Your task to perform on an android device: Go to location settings Image 0: 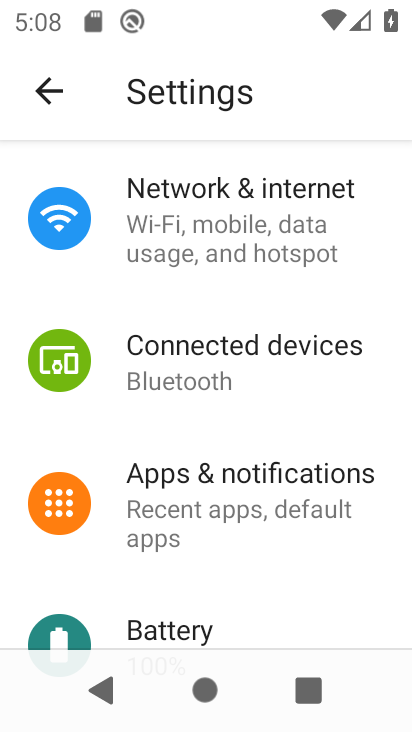
Step 0: drag from (219, 526) to (196, 92)
Your task to perform on an android device: Go to location settings Image 1: 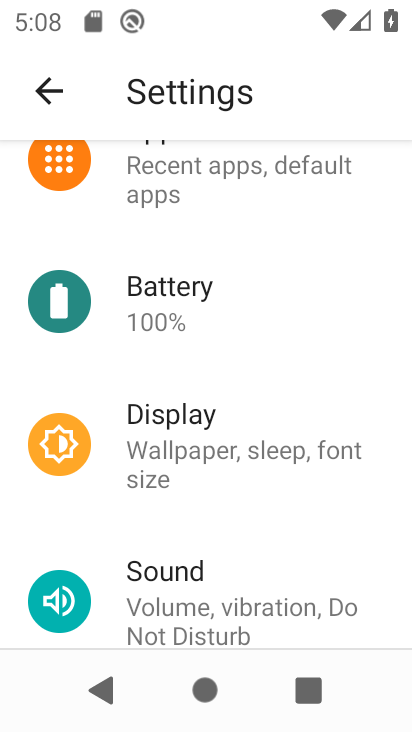
Step 1: drag from (190, 492) to (167, 173)
Your task to perform on an android device: Go to location settings Image 2: 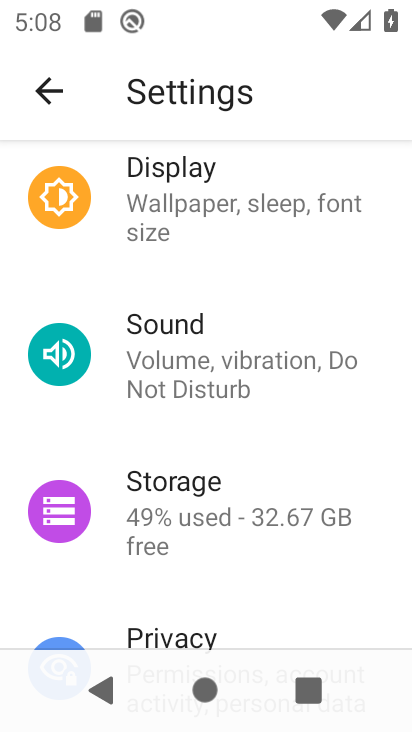
Step 2: drag from (157, 560) to (174, 156)
Your task to perform on an android device: Go to location settings Image 3: 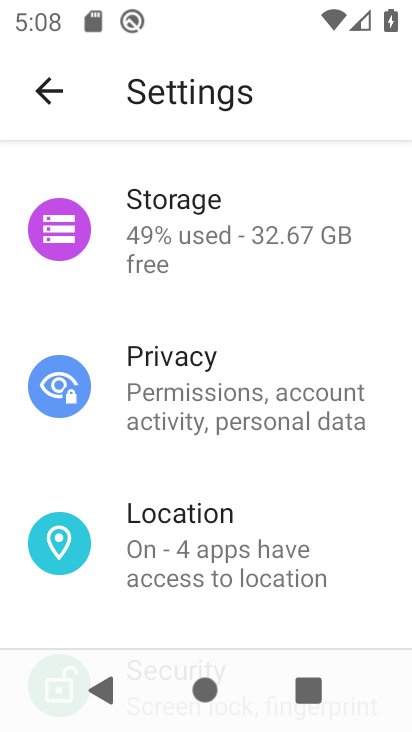
Step 3: click (268, 545)
Your task to perform on an android device: Go to location settings Image 4: 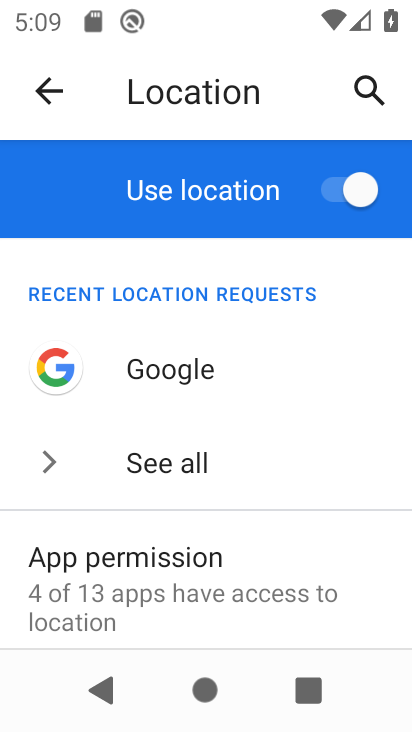
Step 4: task complete